Your task to perform on an android device: clear history in the chrome app Image 0: 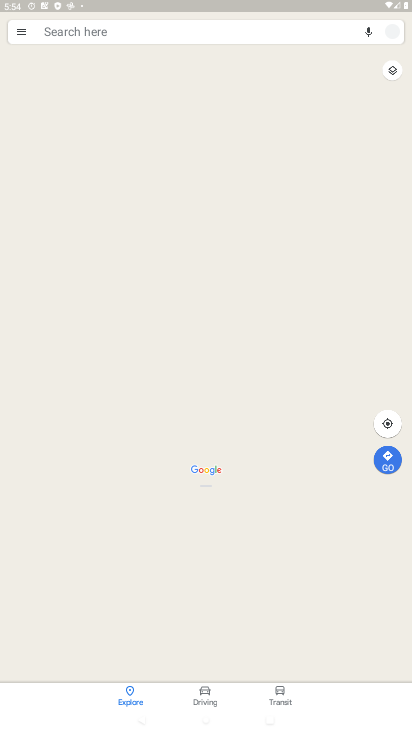
Step 0: press home button
Your task to perform on an android device: clear history in the chrome app Image 1: 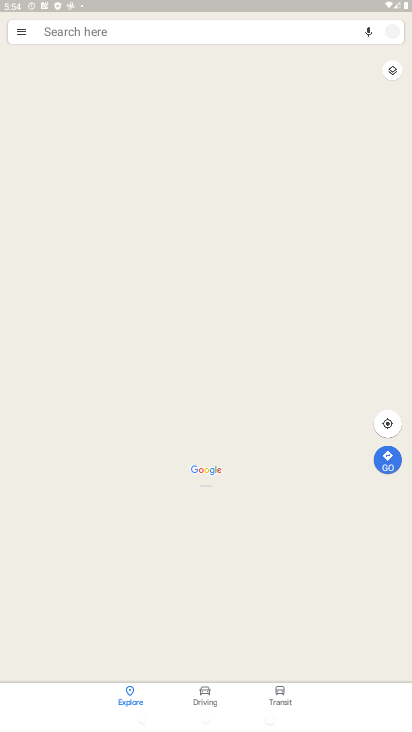
Step 1: drag from (374, 668) to (248, 128)
Your task to perform on an android device: clear history in the chrome app Image 2: 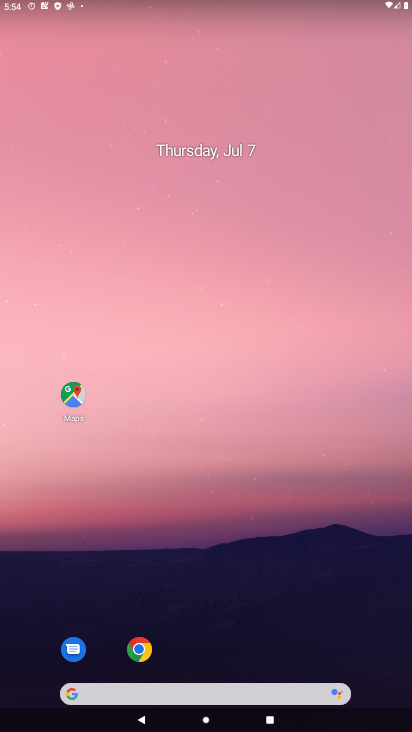
Step 2: drag from (371, 703) to (293, 14)
Your task to perform on an android device: clear history in the chrome app Image 3: 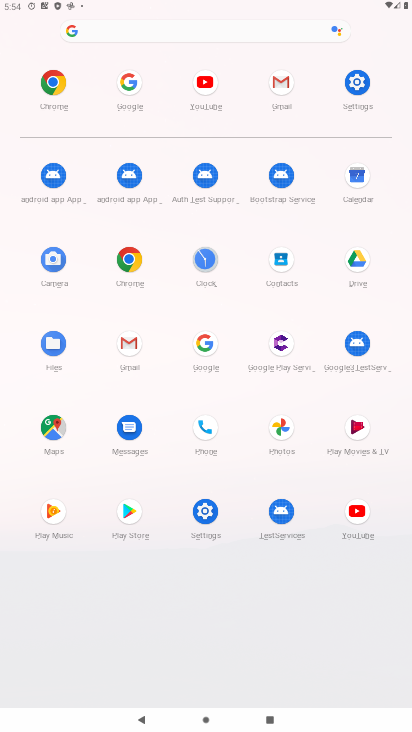
Step 3: click (134, 264)
Your task to perform on an android device: clear history in the chrome app Image 4: 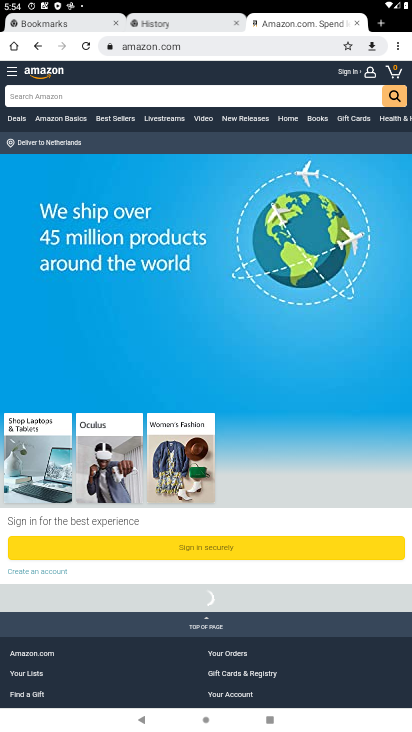
Step 4: press back button
Your task to perform on an android device: clear history in the chrome app Image 5: 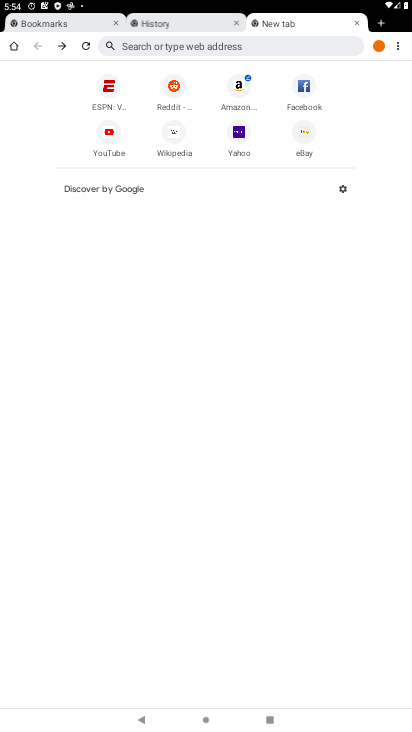
Step 5: click (391, 37)
Your task to perform on an android device: clear history in the chrome app Image 6: 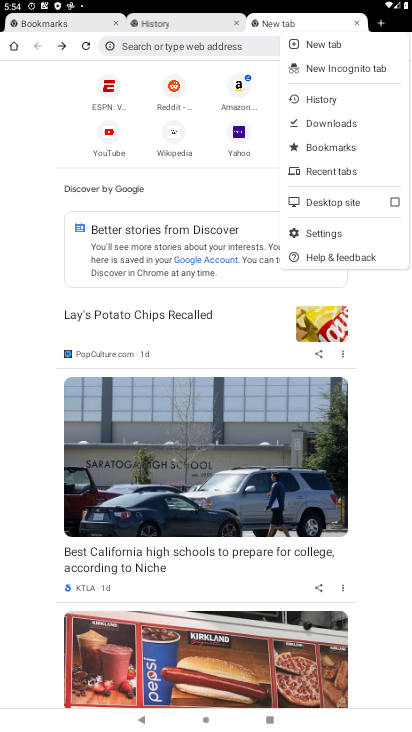
Step 6: click (338, 103)
Your task to perform on an android device: clear history in the chrome app Image 7: 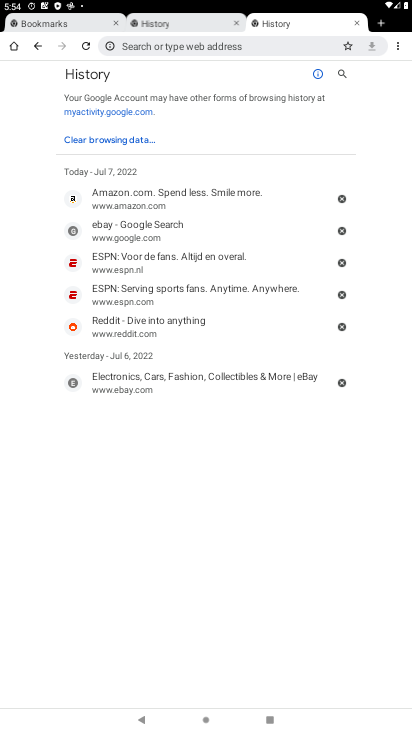
Step 7: click (98, 138)
Your task to perform on an android device: clear history in the chrome app Image 8: 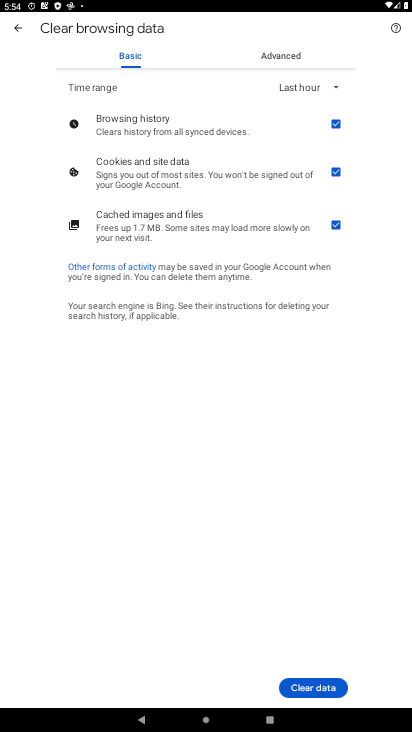
Step 8: click (250, 171)
Your task to perform on an android device: clear history in the chrome app Image 9: 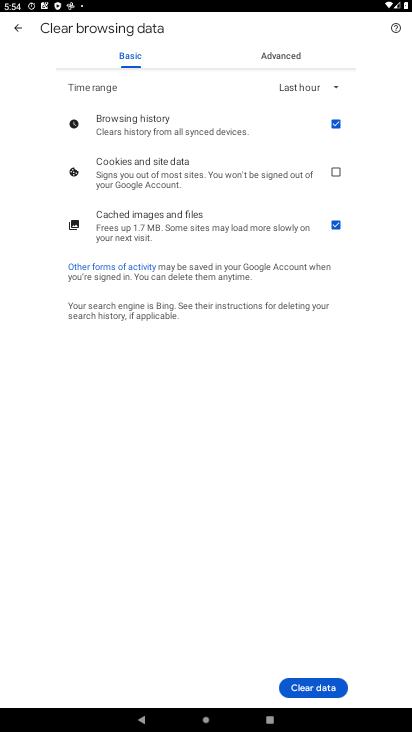
Step 9: click (328, 692)
Your task to perform on an android device: clear history in the chrome app Image 10: 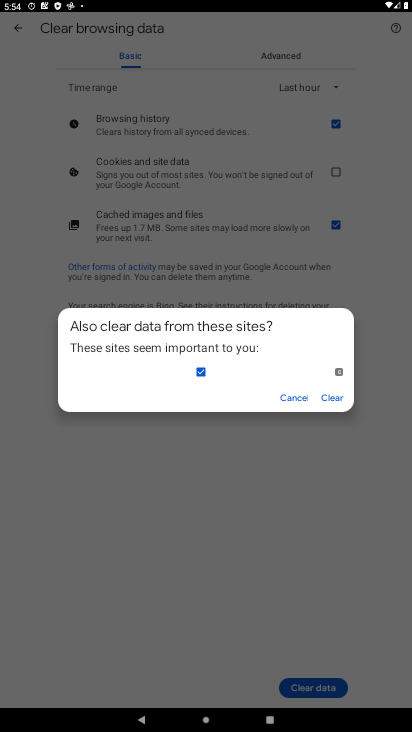
Step 10: click (340, 404)
Your task to perform on an android device: clear history in the chrome app Image 11: 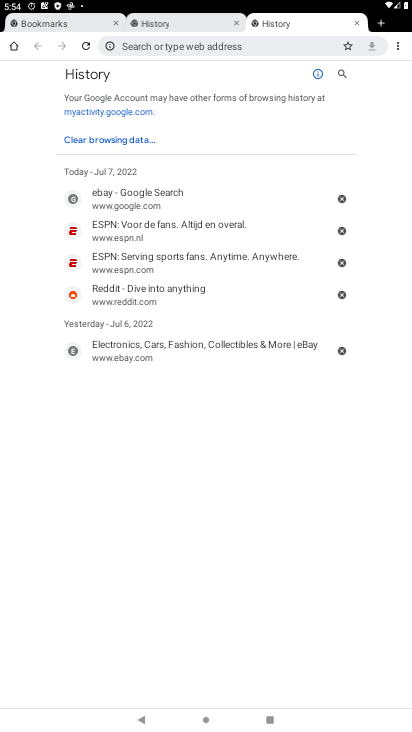
Step 11: task complete